Your task to perform on an android device: Go to Yahoo.com Image 0: 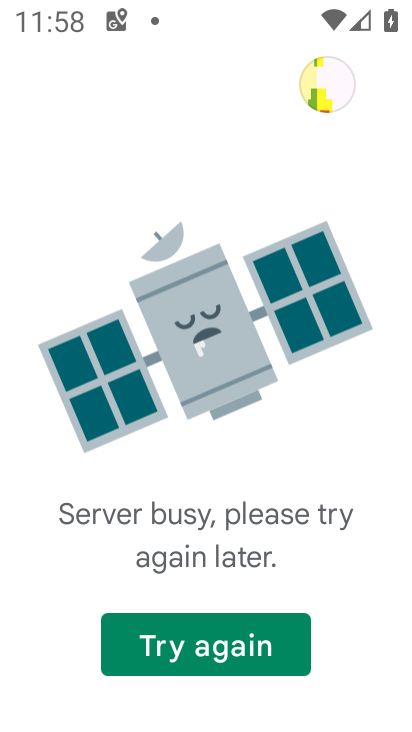
Step 0: press home button
Your task to perform on an android device: Go to Yahoo.com Image 1: 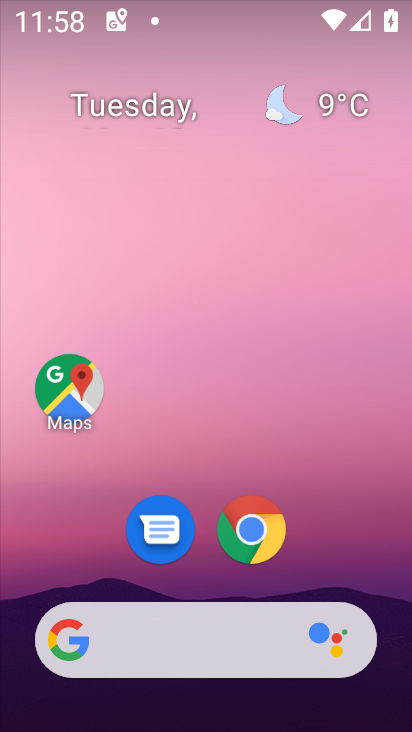
Step 1: click (252, 530)
Your task to perform on an android device: Go to Yahoo.com Image 2: 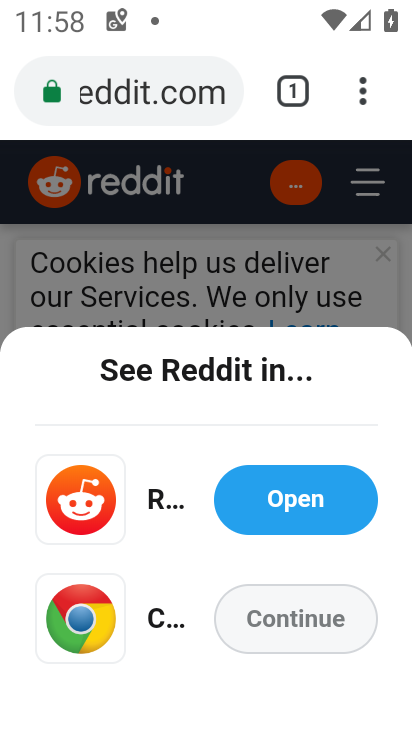
Step 2: click (168, 98)
Your task to perform on an android device: Go to Yahoo.com Image 3: 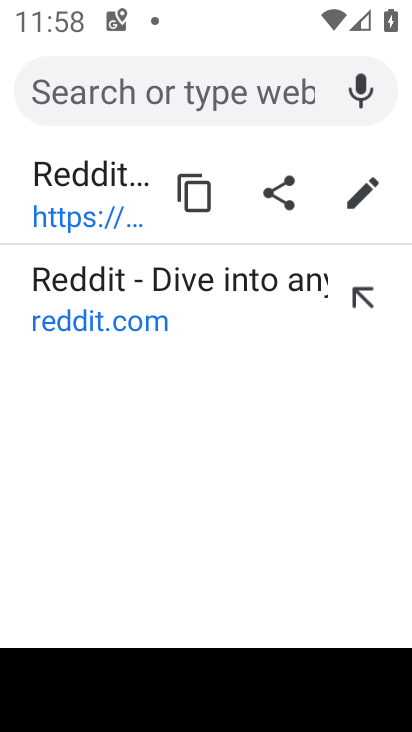
Step 3: type "yahoo.com"
Your task to perform on an android device: Go to Yahoo.com Image 4: 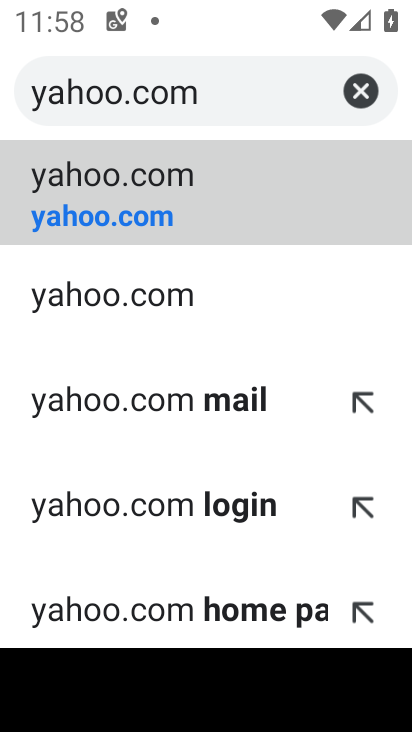
Step 4: click (92, 241)
Your task to perform on an android device: Go to Yahoo.com Image 5: 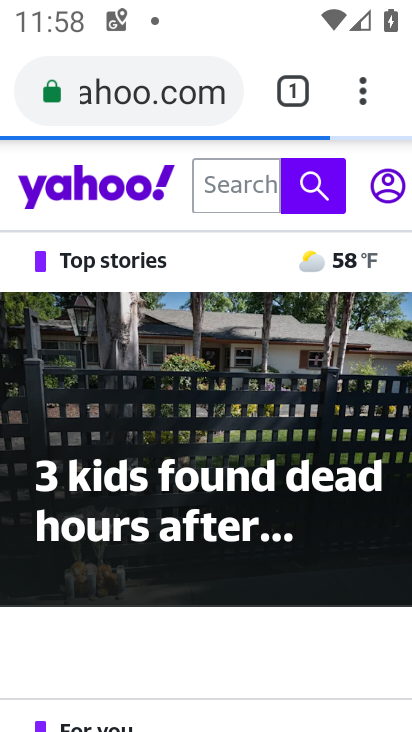
Step 5: task complete